Your task to perform on an android device: Open settings on Google Maps Image 0: 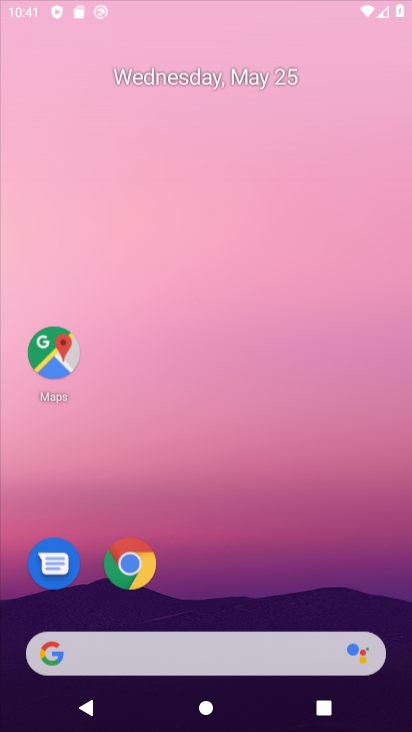
Step 0: drag from (295, 395) to (283, 521)
Your task to perform on an android device: Open settings on Google Maps Image 1: 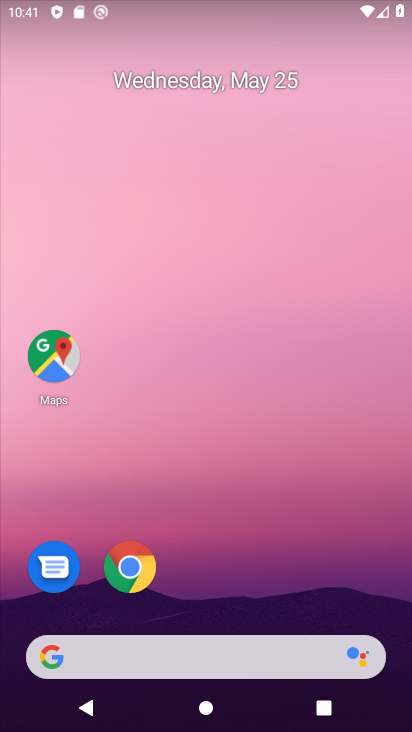
Step 1: drag from (225, 619) to (273, 128)
Your task to perform on an android device: Open settings on Google Maps Image 2: 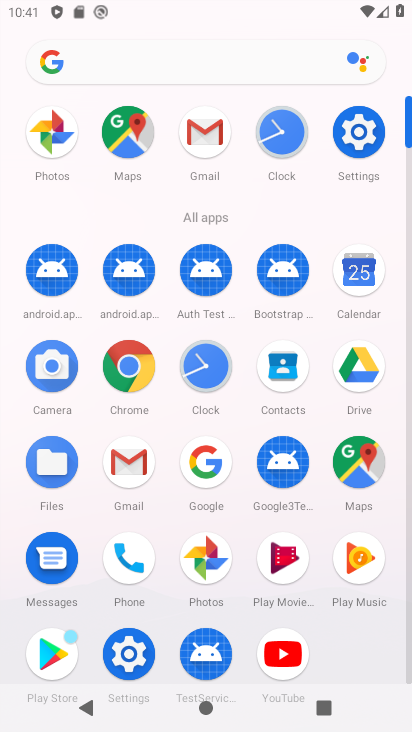
Step 2: click (353, 460)
Your task to perform on an android device: Open settings on Google Maps Image 3: 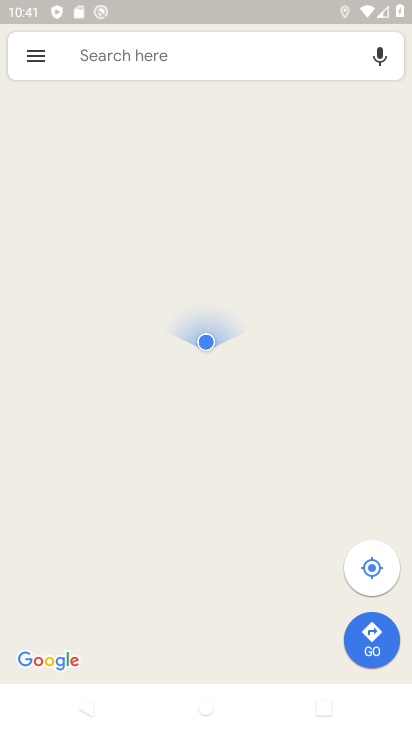
Step 3: click (30, 60)
Your task to perform on an android device: Open settings on Google Maps Image 4: 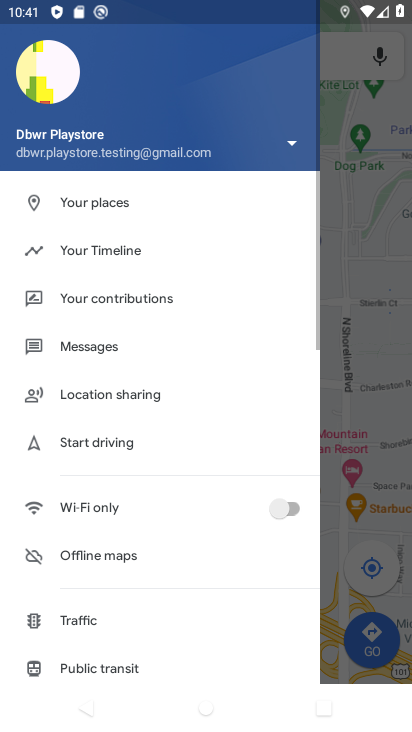
Step 4: drag from (82, 587) to (118, 87)
Your task to perform on an android device: Open settings on Google Maps Image 5: 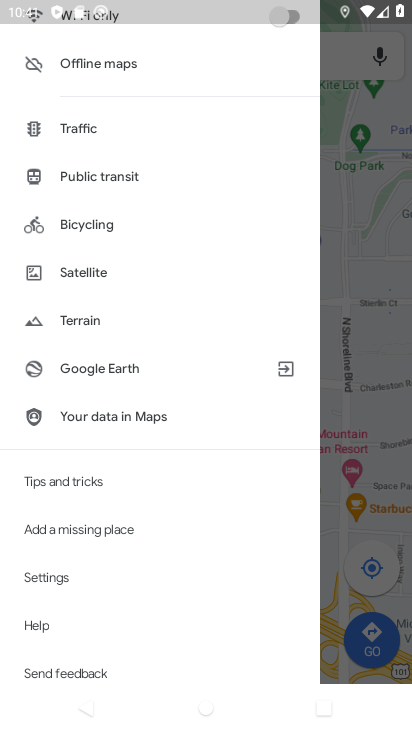
Step 5: click (42, 573)
Your task to perform on an android device: Open settings on Google Maps Image 6: 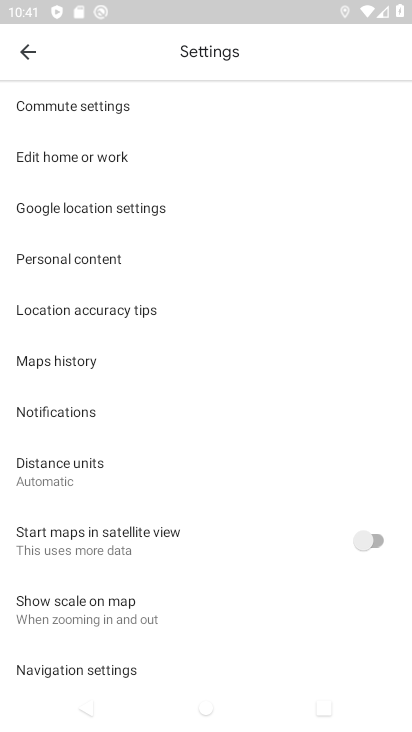
Step 6: task complete